Your task to perform on an android device: turn on showing notifications on the lock screen Image 0: 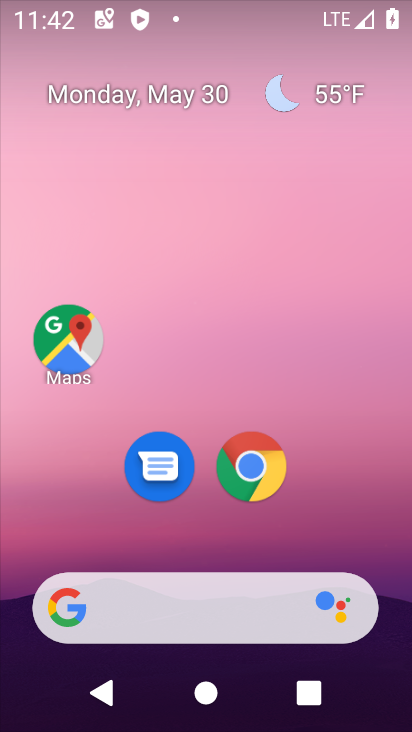
Step 0: drag from (368, 564) to (398, 149)
Your task to perform on an android device: turn on showing notifications on the lock screen Image 1: 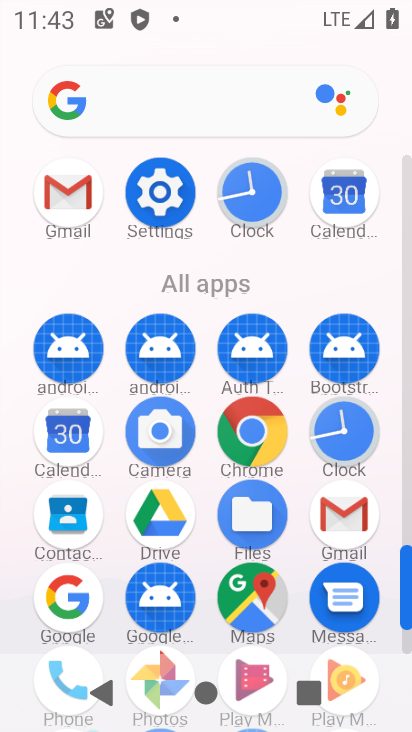
Step 1: click (166, 199)
Your task to perform on an android device: turn on showing notifications on the lock screen Image 2: 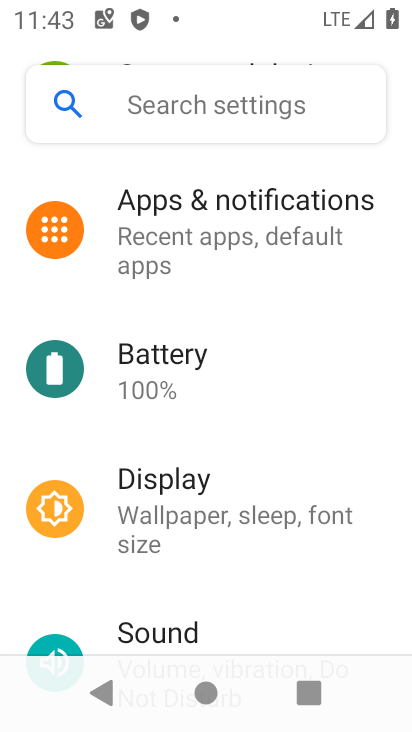
Step 2: click (246, 201)
Your task to perform on an android device: turn on showing notifications on the lock screen Image 3: 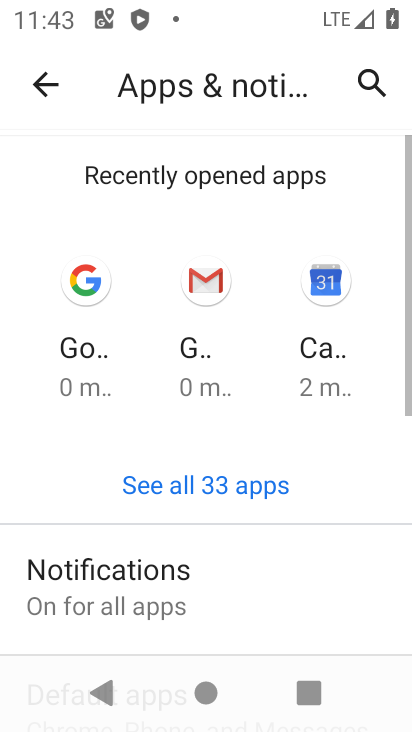
Step 3: click (187, 588)
Your task to perform on an android device: turn on showing notifications on the lock screen Image 4: 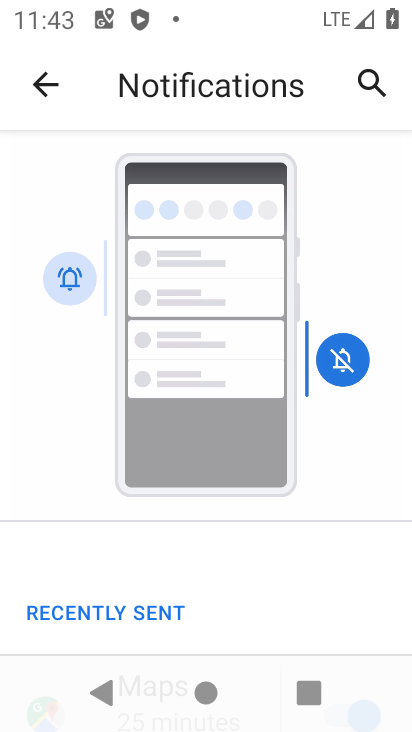
Step 4: drag from (254, 620) to (258, 112)
Your task to perform on an android device: turn on showing notifications on the lock screen Image 5: 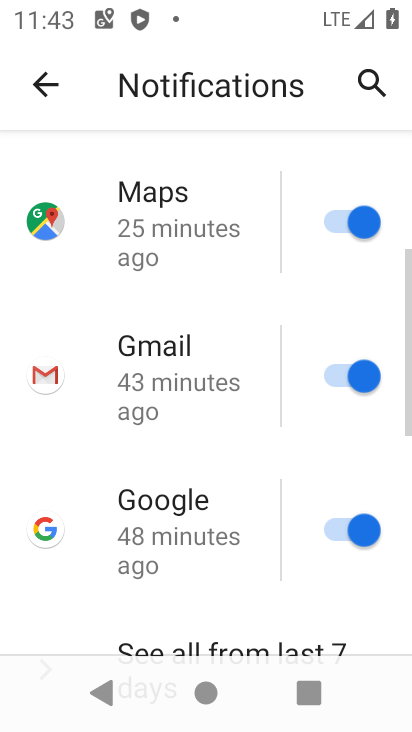
Step 5: drag from (232, 645) to (280, 279)
Your task to perform on an android device: turn on showing notifications on the lock screen Image 6: 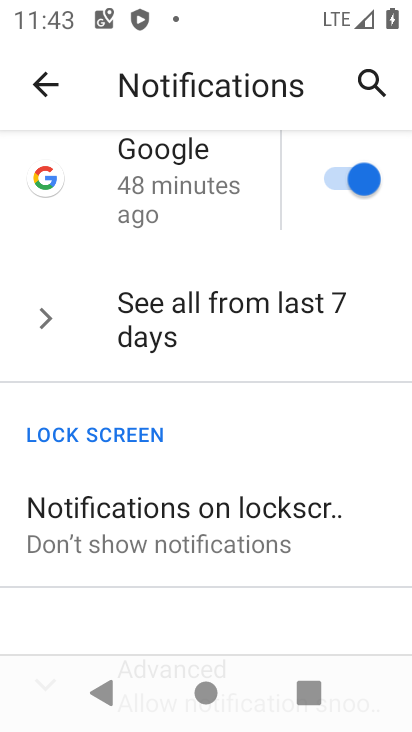
Step 6: click (237, 544)
Your task to perform on an android device: turn on showing notifications on the lock screen Image 7: 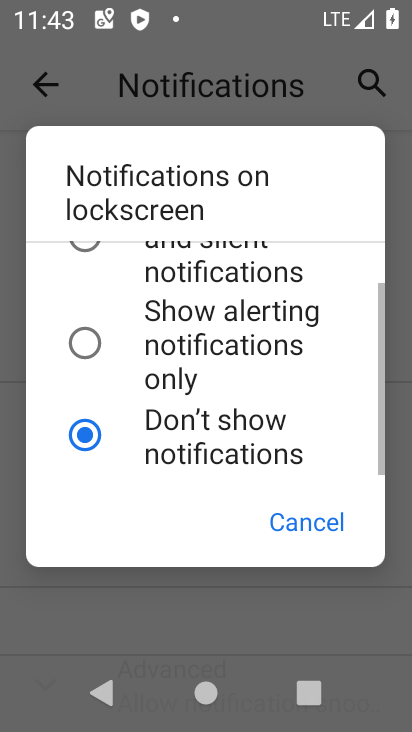
Step 7: click (162, 260)
Your task to perform on an android device: turn on showing notifications on the lock screen Image 8: 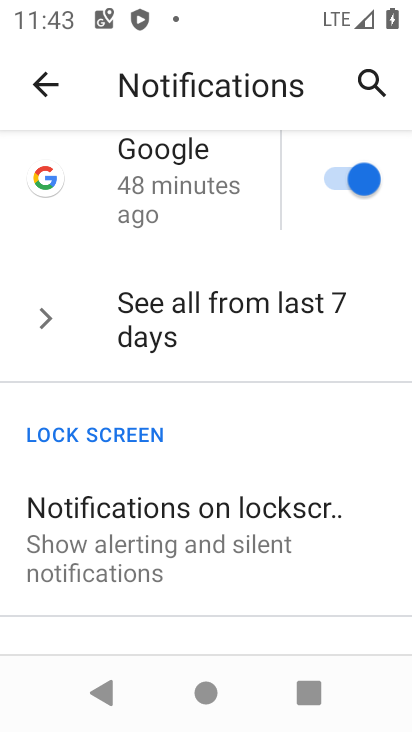
Step 8: task complete